Your task to perform on an android device: Go to Amazon Image 0: 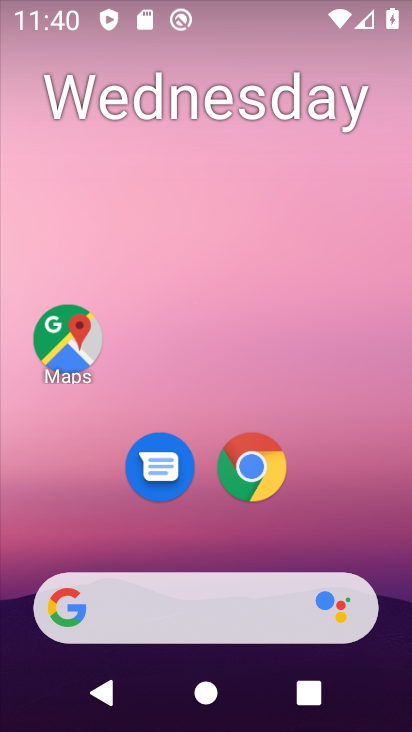
Step 0: click (255, 469)
Your task to perform on an android device: Go to Amazon Image 1: 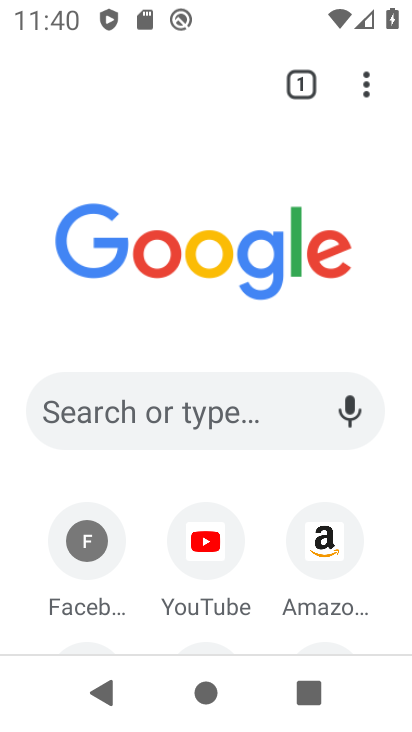
Step 1: click (327, 535)
Your task to perform on an android device: Go to Amazon Image 2: 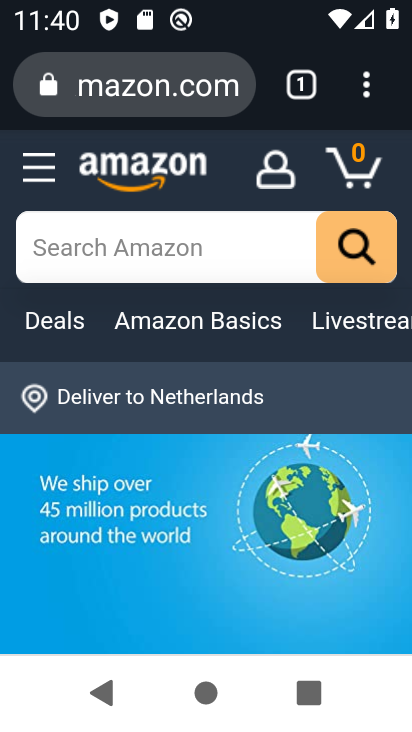
Step 2: task complete